Your task to perform on an android device: What's on my calendar tomorrow? Image 0: 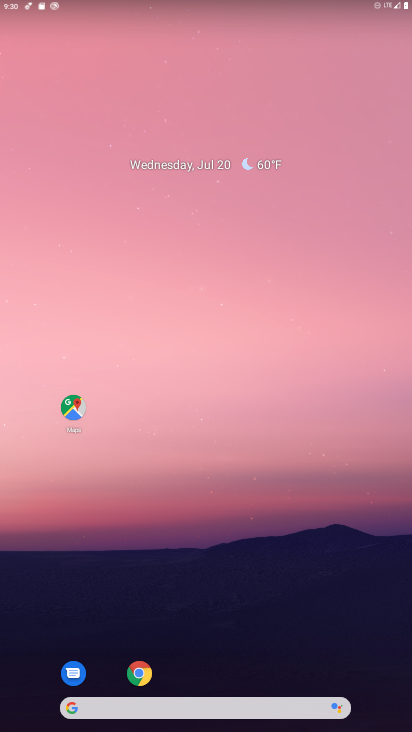
Step 0: drag from (199, 603) to (175, 260)
Your task to perform on an android device: What's on my calendar tomorrow? Image 1: 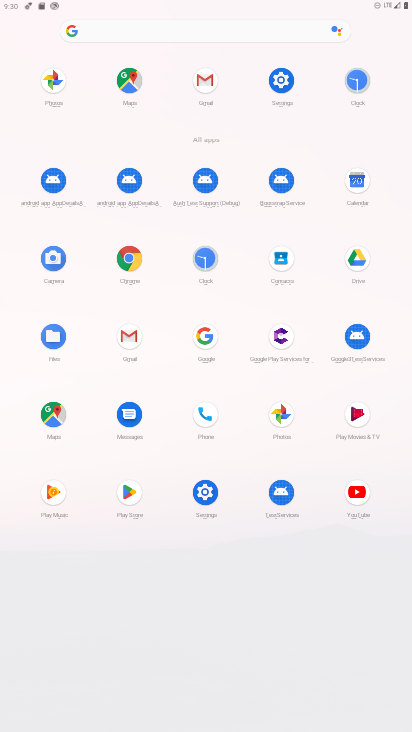
Step 1: click (354, 195)
Your task to perform on an android device: What's on my calendar tomorrow? Image 2: 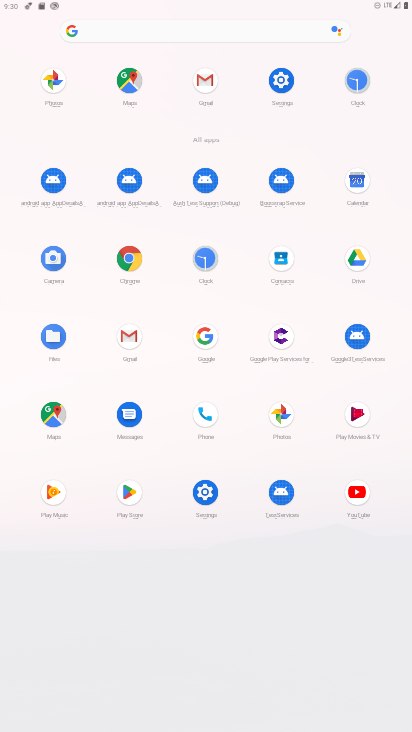
Step 2: click (354, 195)
Your task to perform on an android device: What's on my calendar tomorrow? Image 3: 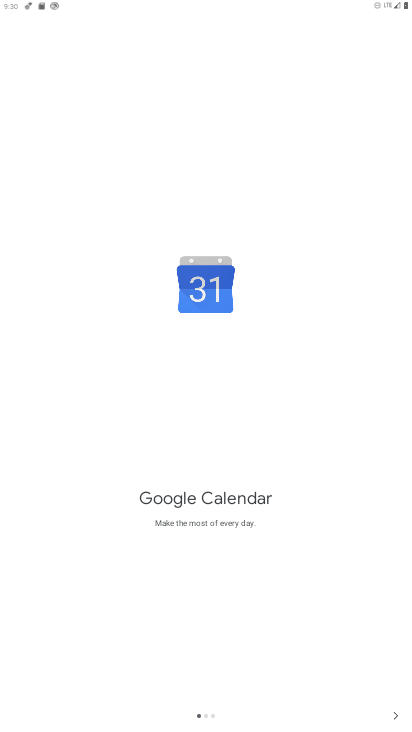
Step 3: click (390, 712)
Your task to perform on an android device: What's on my calendar tomorrow? Image 4: 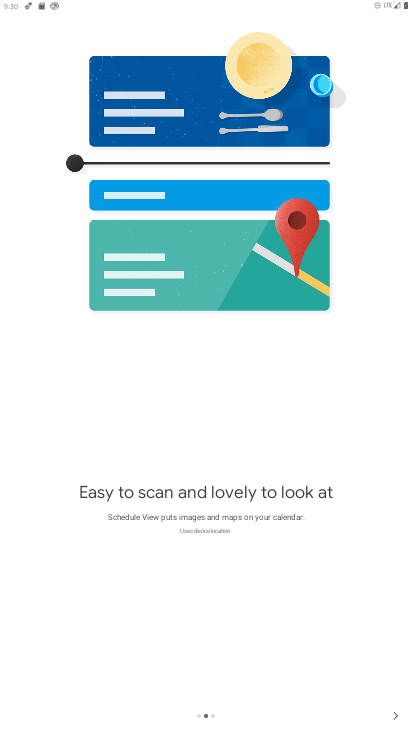
Step 4: click (390, 712)
Your task to perform on an android device: What's on my calendar tomorrow? Image 5: 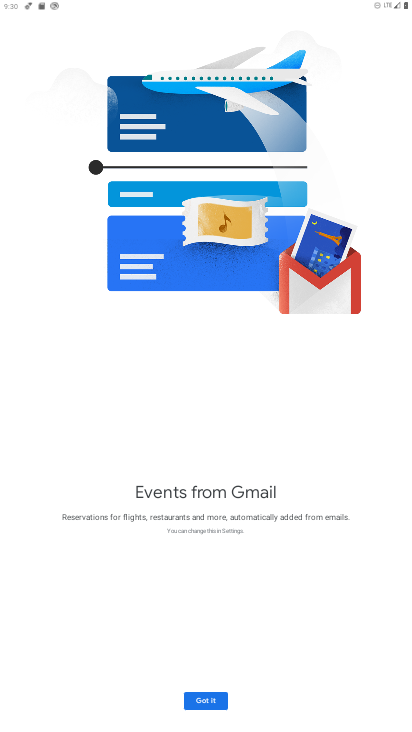
Step 5: click (200, 700)
Your task to perform on an android device: What's on my calendar tomorrow? Image 6: 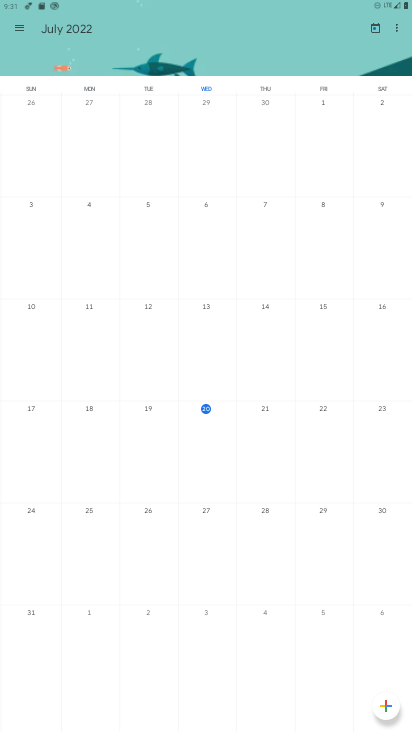
Step 6: click (269, 413)
Your task to perform on an android device: What's on my calendar tomorrow? Image 7: 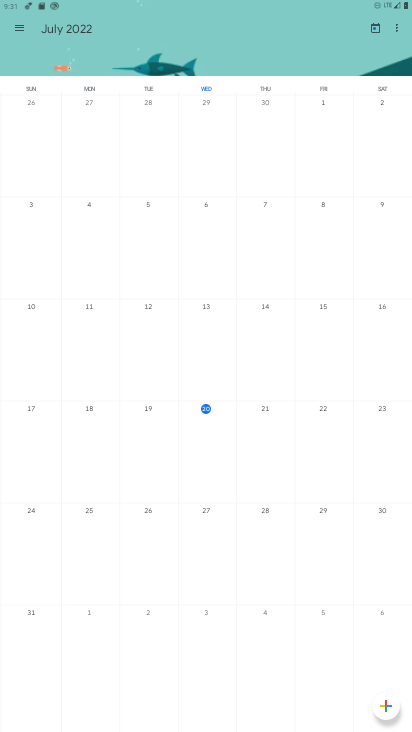
Step 7: click (269, 413)
Your task to perform on an android device: What's on my calendar tomorrow? Image 8: 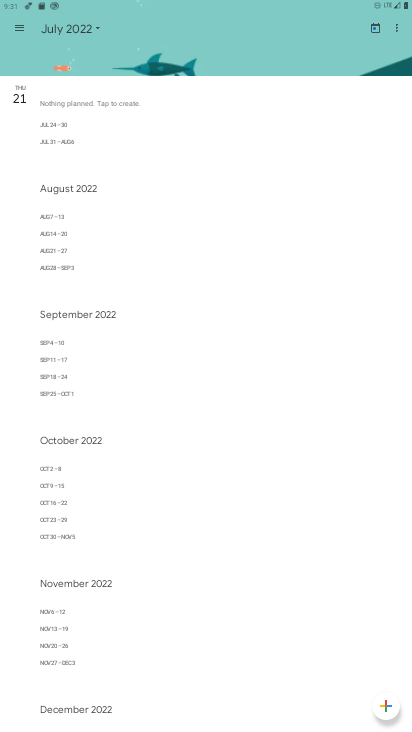
Step 8: task complete